Your task to perform on an android device: Is it going to rain this weekend? Image 0: 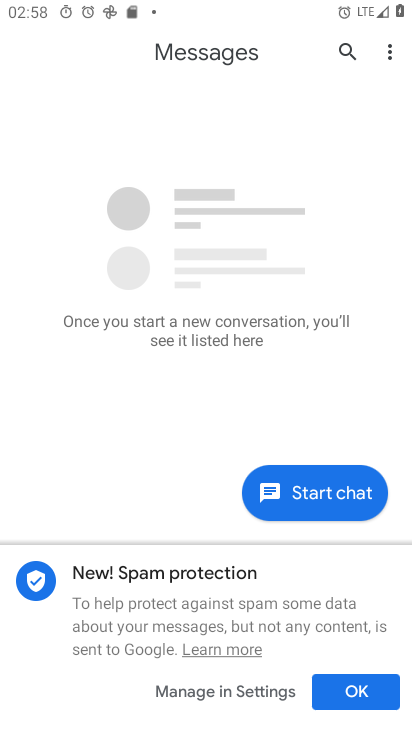
Step 0: press home button
Your task to perform on an android device: Is it going to rain this weekend? Image 1: 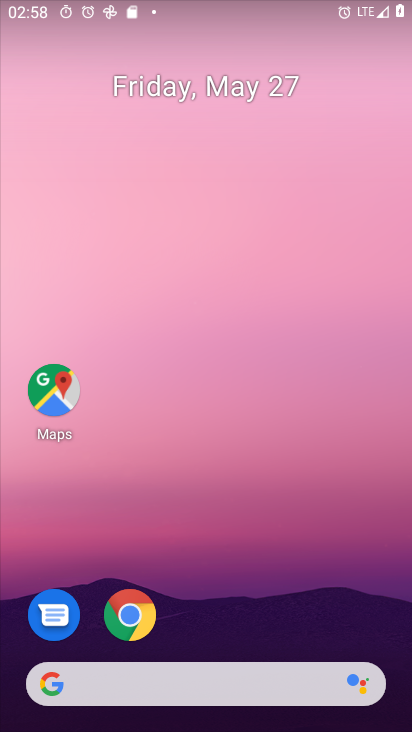
Step 1: click (293, 678)
Your task to perform on an android device: Is it going to rain this weekend? Image 2: 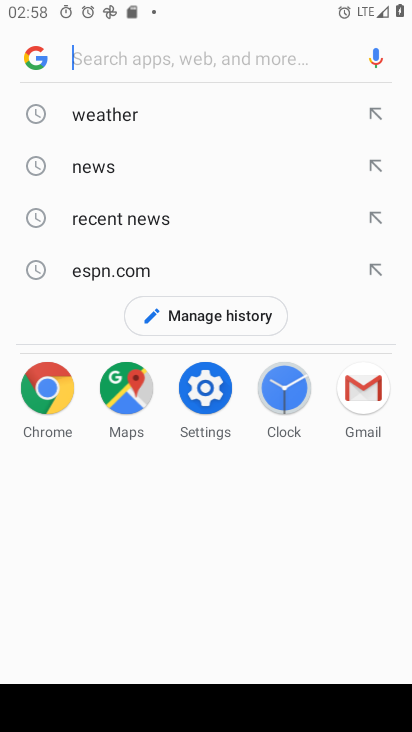
Step 2: click (124, 115)
Your task to perform on an android device: Is it going to rain this weekend? Image 3: 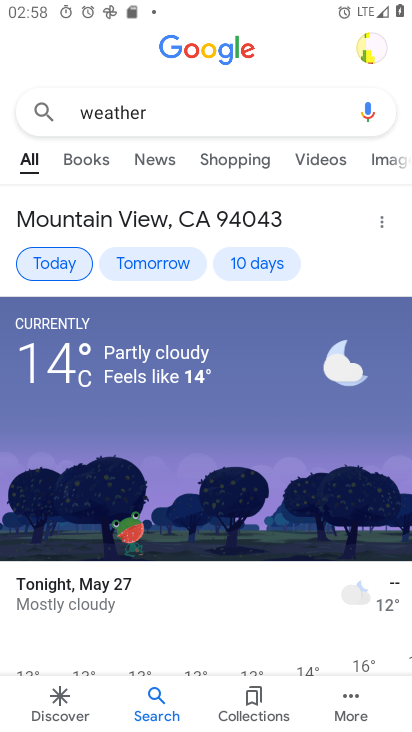
Step 3: click (280, 254)
Your task to perform on an android device: Is it going to rain this weekend? Image 4: 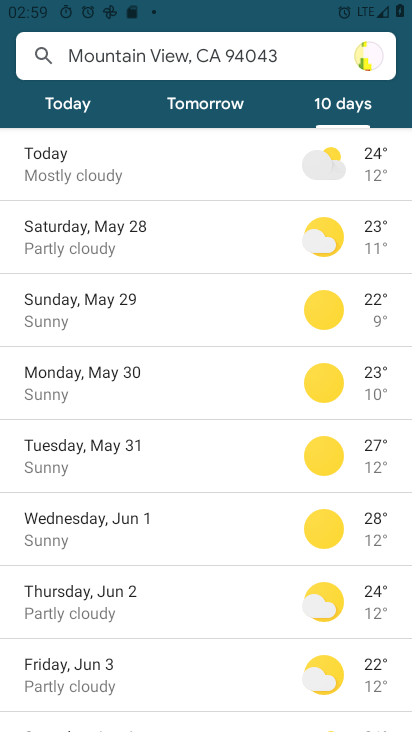
Step 4: drag from (256, 541) to (242, 442)
Your task to perform on an android device: Is it going to rain this weekend? Image 5: 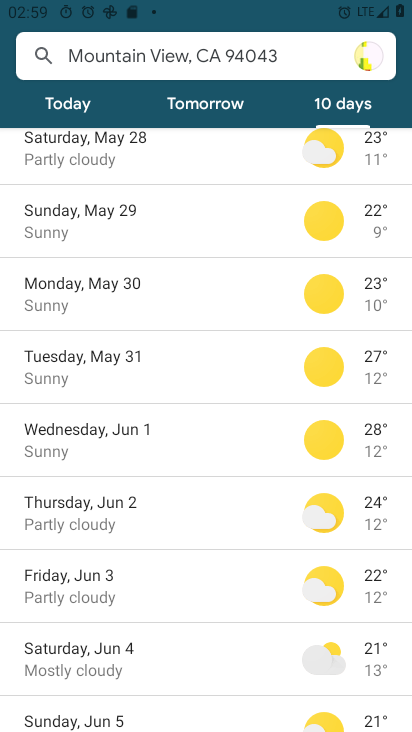
Step 5: drag from (202, 236) to (184, 444)
Your task to perform on an android device: Is it going to rain this weekend? Image 6: 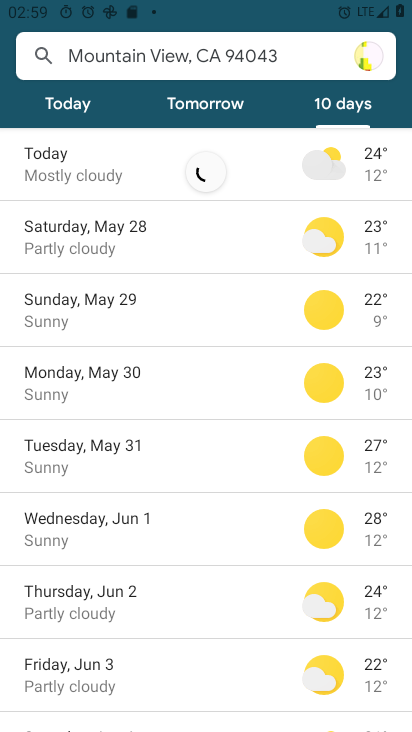
Step 6: click (195, 247)
Your task to perform on an android device: Is it going to rain this weekend? Image 7: 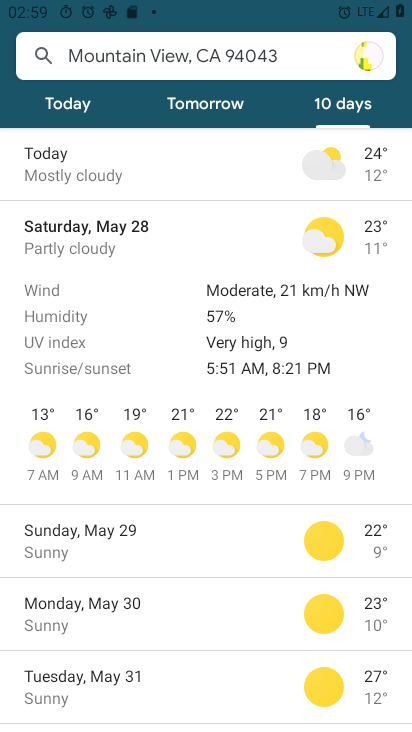
Step 7: task complete